Your task to perform on an android device: turn on the 24-hour format for clock Image 0: 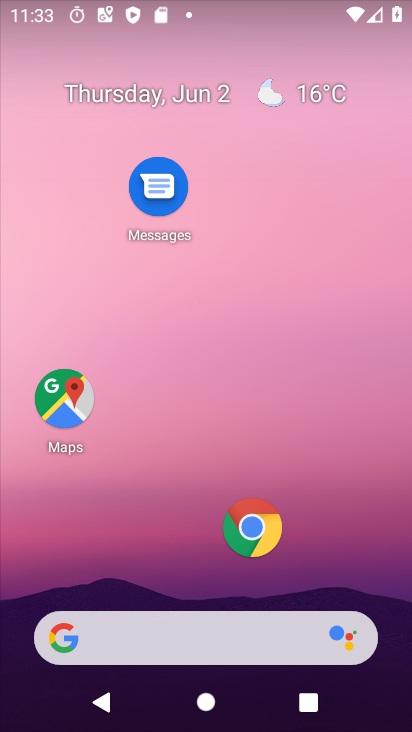
Step 0: drag from (317, 55) to (317, 7)
Your task to perform on an android device: turn on the 24-hour format for clock Image 1: 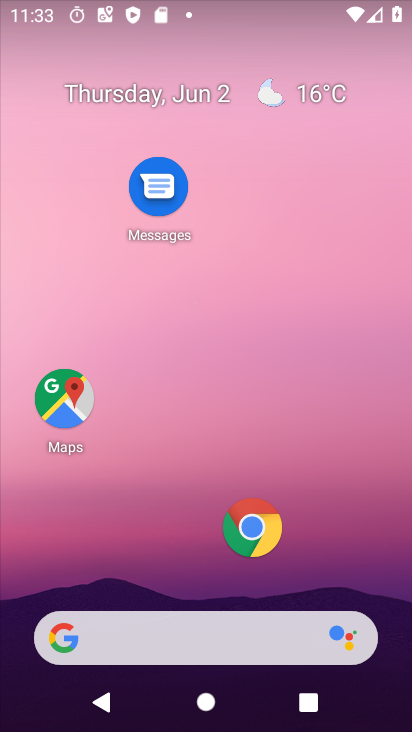
Step 1: drag from (319, 571) to (325, 18)
Your task to perform on an android device: turn on the 24-hour format for clock Image 2: 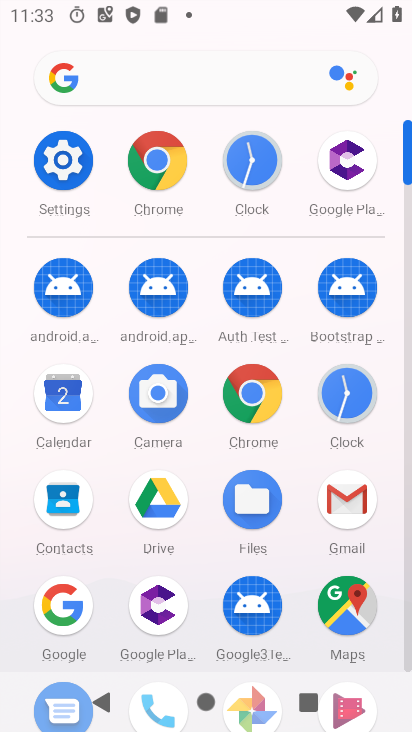
Step 2: click (345, 382)
Your task to perform on an android device: turn on the 24-hour format for clock Image 3: 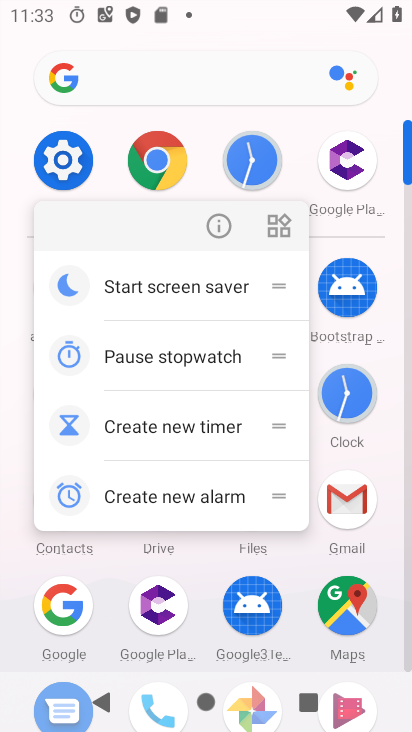
Step 3: click (346, 382)
Your task to perform on an android device: turn on the 24-hour format for clock Image 4: 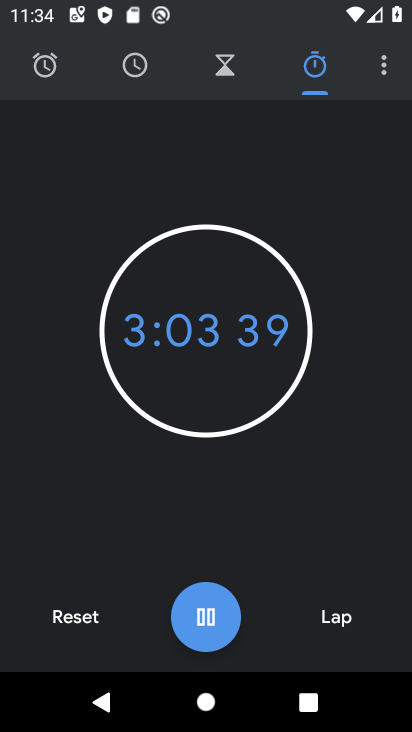
Step 4: click (70, 617)
Your task to perform on an android device: turn on the 24-hour format for clock Image 5: 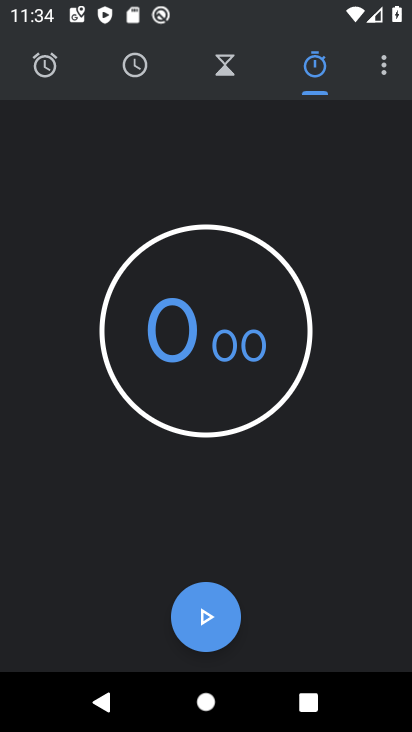
Step 5: click (385, 61)
Your task to perform on an android device: turn on the 24-hour format for clock Image 6: 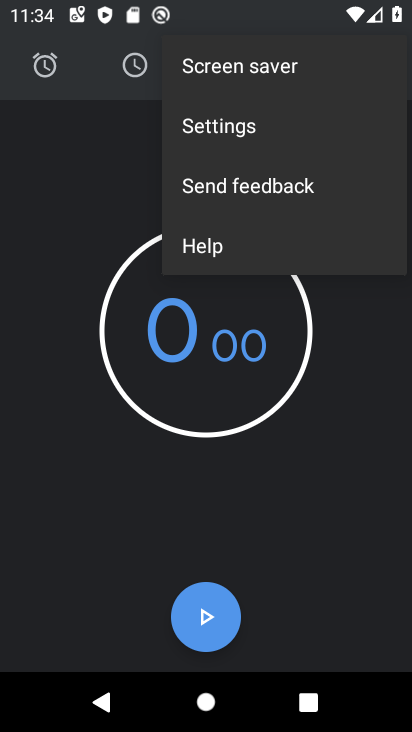
Step 6: click (262, 122)
Your task to perform on an android device: turn on the 24-hour format for clock Image 7: 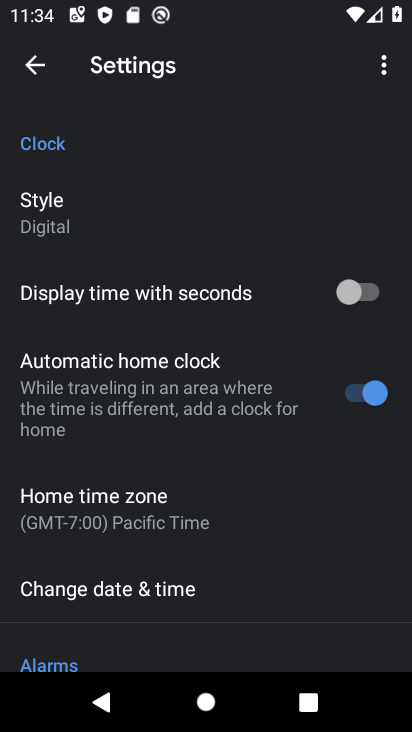
Step 7: click (219, 596)
Your task to perform on an android device: turn on the 24-hour format for clock Image 8: 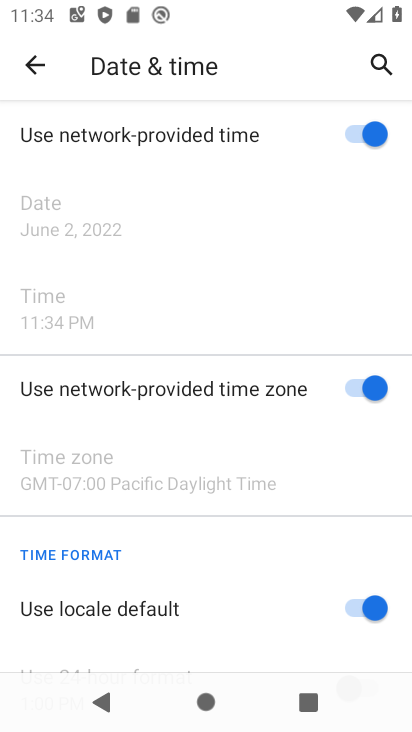
Step 8: drag from (302, 572) to (329, 268)
Your task to perform on an android device: turn on the 24-hour format for clock Image 9: 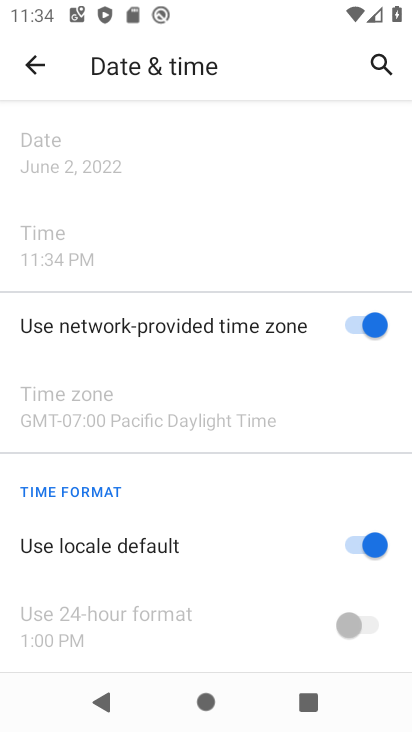
Step 9: click (360, 536)
Your task to perform on an android device: turn on the 24-hour format for clock Image 10: 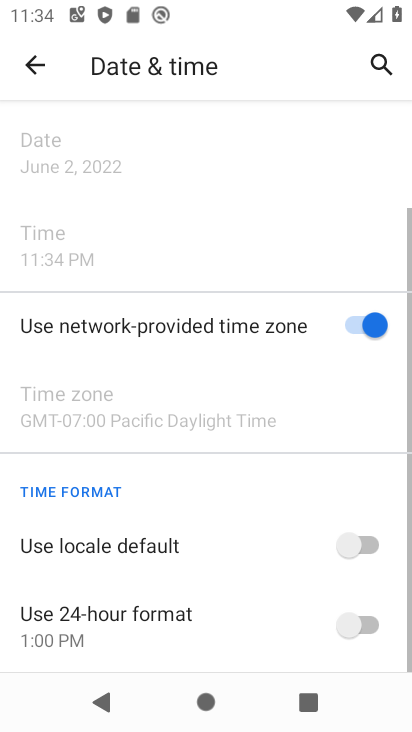
Step 10: click (365, 621)
Your task to perform on an android device: turn on the 24-hour format for clock Image 11: 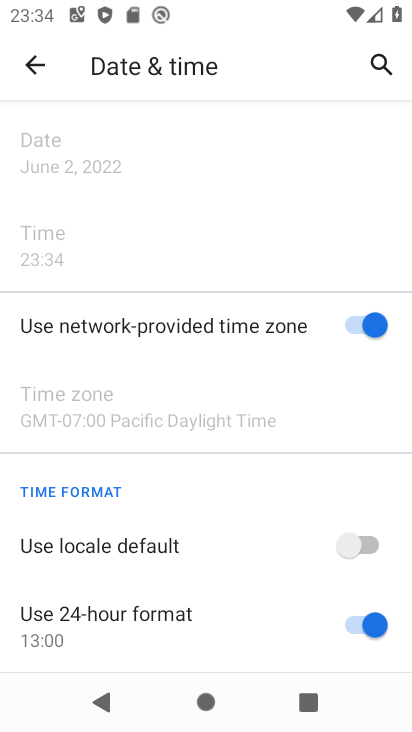
Step 11: task complete